Your task to perform on an android device: Go to Reddit.com Image 0: 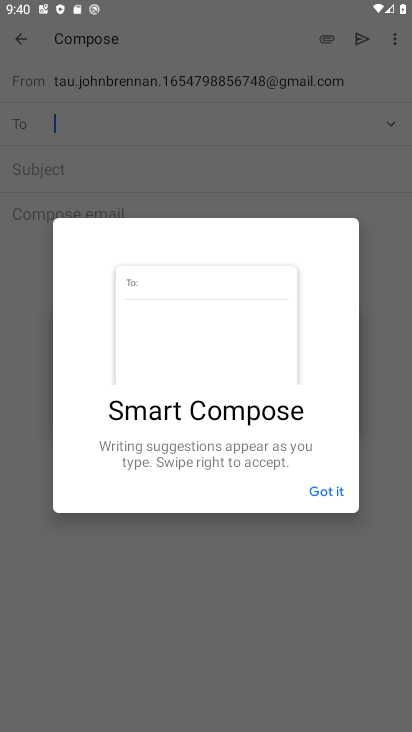
Step 0: press home button
Your task to perform on an android device: Go to Reddit.com Image 1: 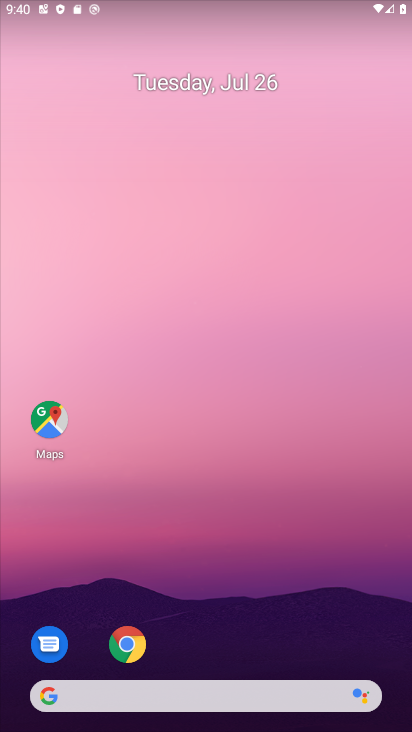
Step 1: click (223, 696)
Your task to perform on an android device: Go to Reddit.com Image 2: 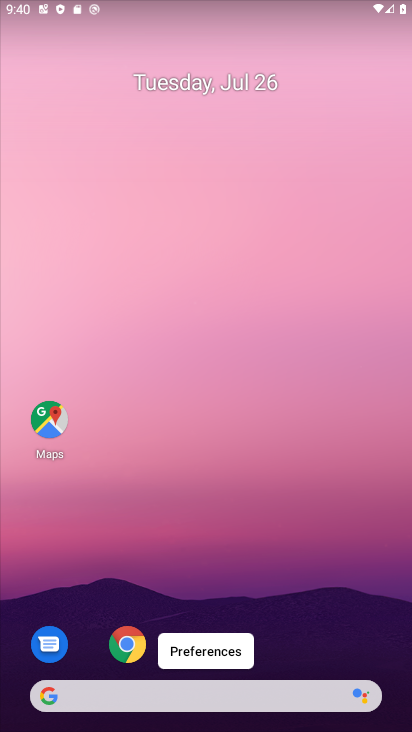
Step 2: click (131, 648)
Your task to perform on an android device: Go to Reddit.com Image 3: 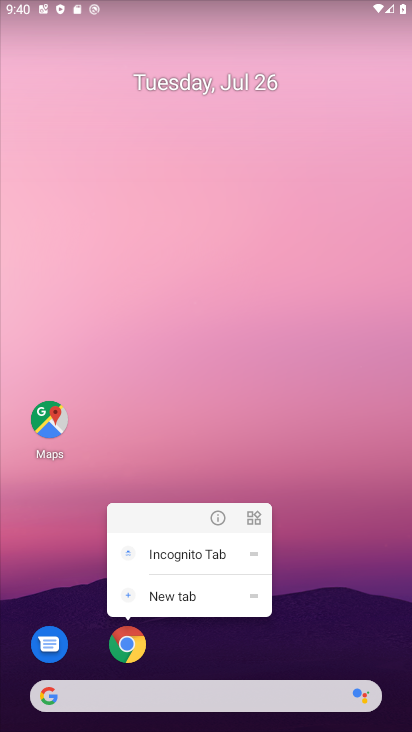
Step 3: click (122, 661)
Your task to perform on an android device: Go to Reddit.com Image 4: 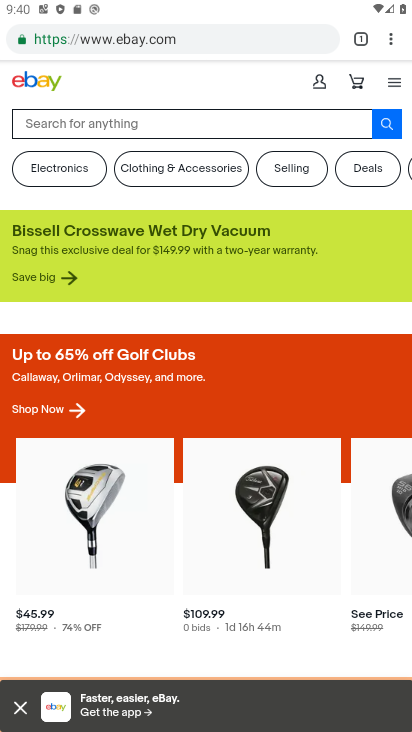
Step 4: click (158, 32)
Your task to perform on an android device: Go to Reddit.com Image 5: 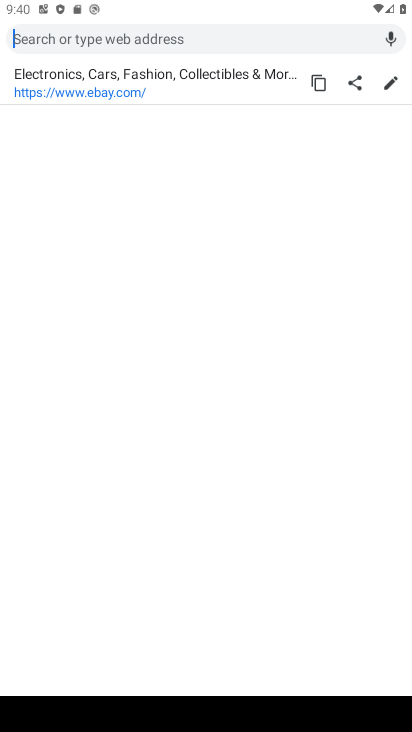
Step 5: type "Reddit.com"
Your task to perform on an android device: Go to Reddit.com Image 6: 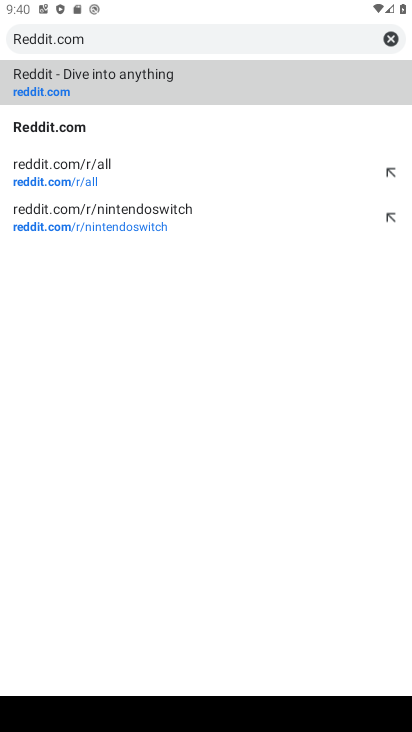
Step 6: click (130, 90)
Your task to perform on an android device: Go to Reddit.com Image 7: 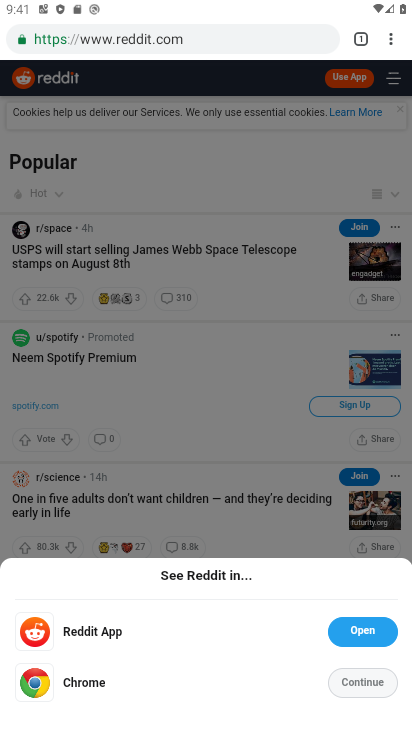
Step 7: task complete